Your task to perform on an android device: Open Google Chrome and open the bookmarks view Image 0: 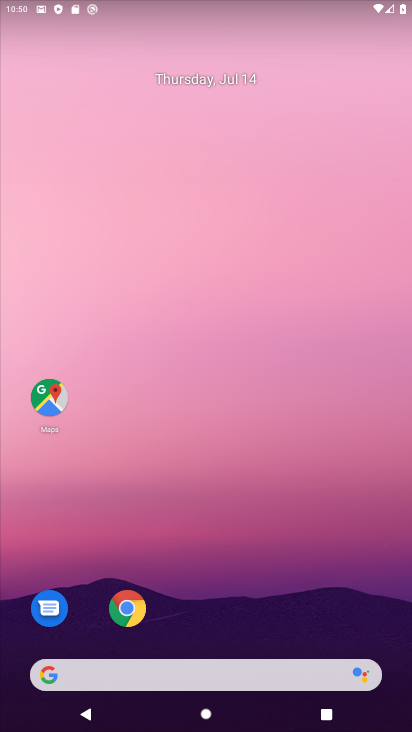
Step 0: drag from (248, 318) to (223, 0)
Your task to perform on an android device: Open Google Chrome and open the bookmarks view Image 1: 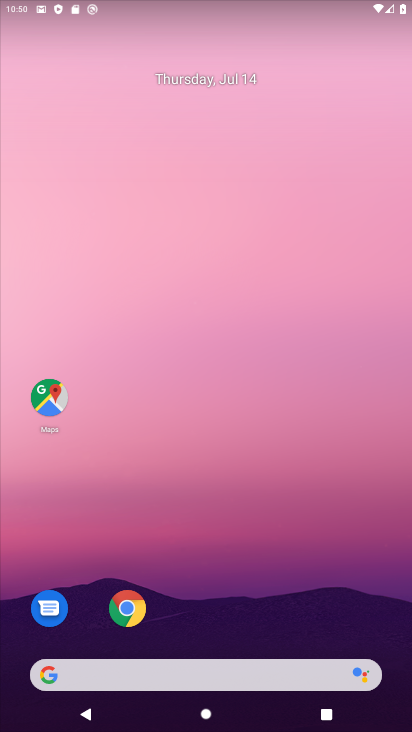
Step 1: drag from (214, 347) to (228, 52)
Your task to perform on an android device: Open Google Chrome and open the bookmarks view Image 2: 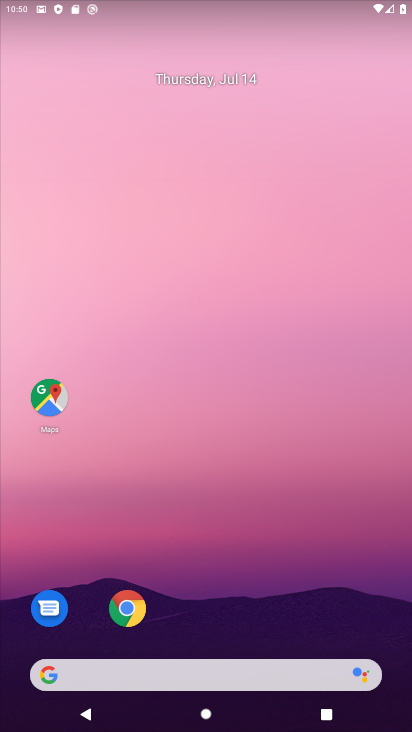
Step 2: drag from (271, 596) to (290, 37)
Your task to perform on an android device: Open Google Chrome and open the bookmarks view Image 3: 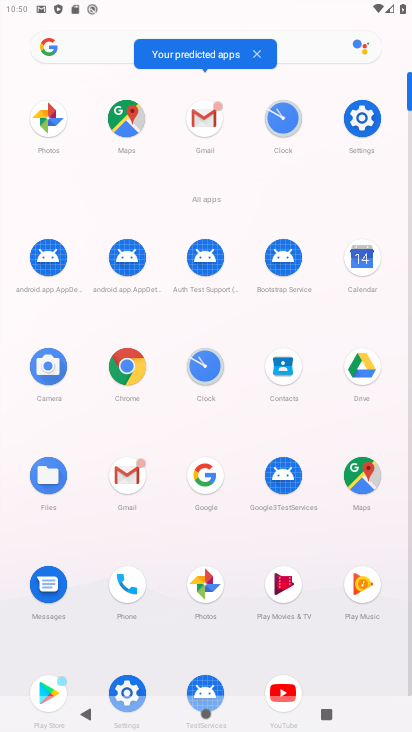
Step 3: click (127, 376)
Your task to perform on an android device: Open Google Chrome and open the bookmarks view Image 4: 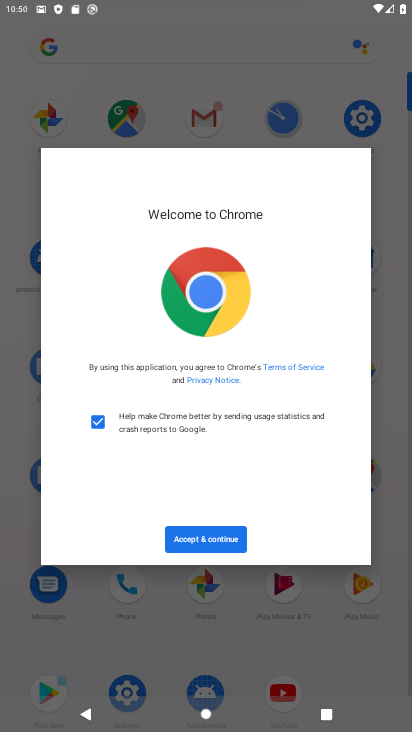
Step 4: click (222, 536)
Your task to perform on an android device: Open Google Chrome and open the bookmarks view Image 5: 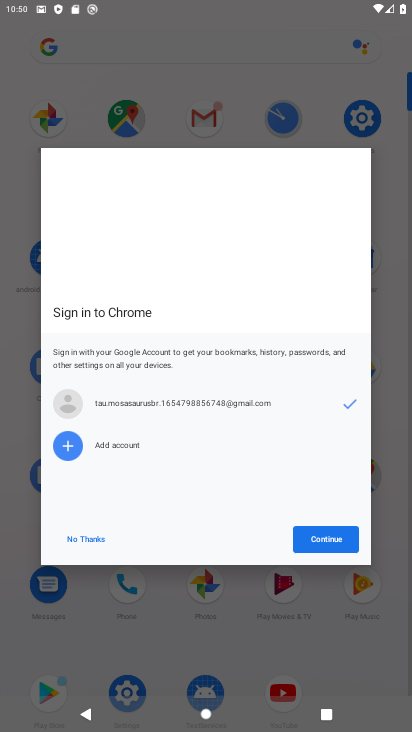
Step 5: click (91, 545)
Your task to perform on an android device: Open Google Chrome and open the bookmarks view Image 6: 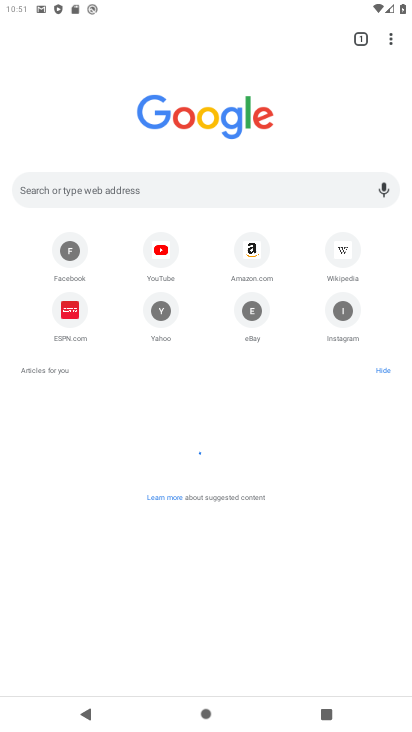
Step 6: drag from (390, 41) to (249, 158)
Your task to perform on an android device: Open Google Chrome and open the bookmarks view Image 7: 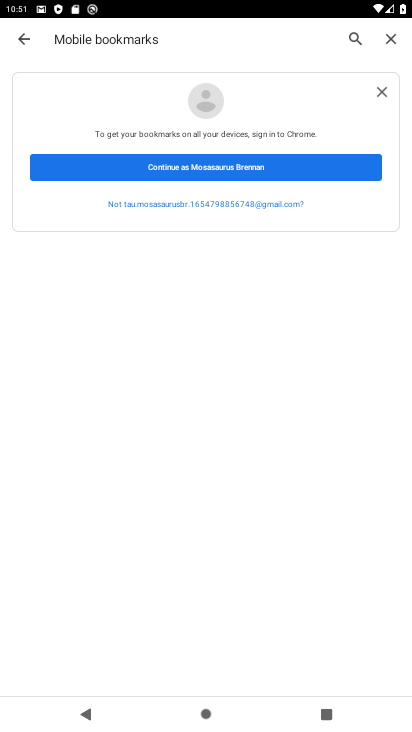
Step 7: click (179, 166)
Your task to perform on an android device: Open Google Chrome and open the bookmarks view Image 8: 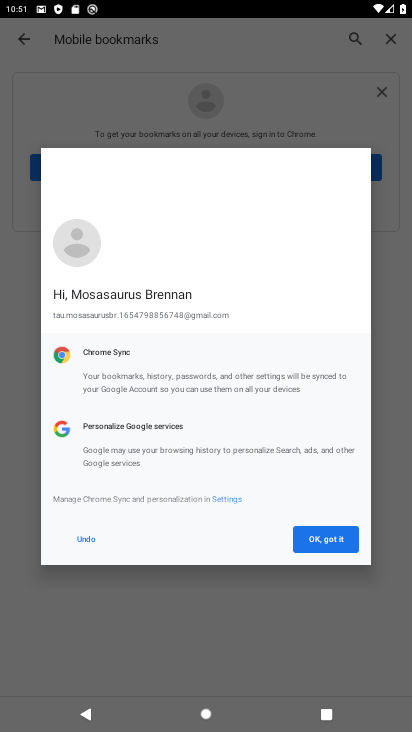
Step 8: click (315, 534)
Your task to perform on an android device: Open Google Chrome and open the bookmarks view Image 9: 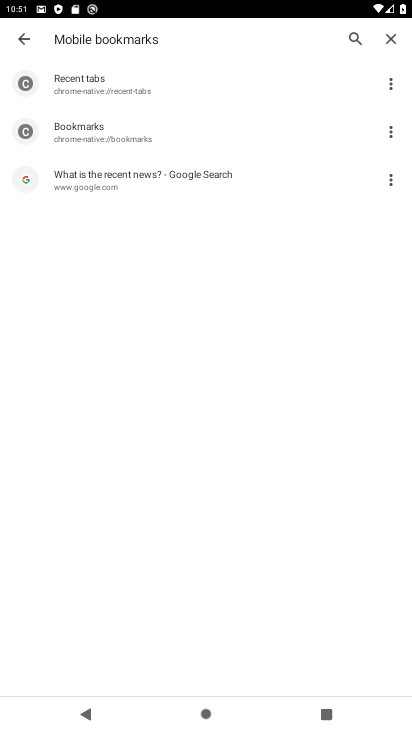
Step 9: task complete